Your task to perform on an android device: Open the calendar app, open the side menu, and click the "Day" option Image 0: 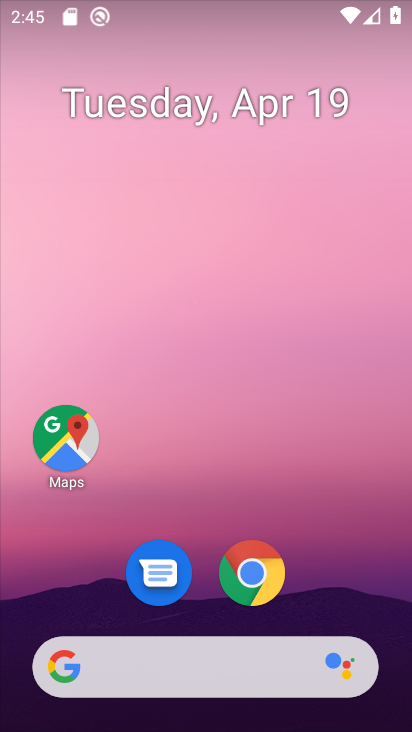
Step 0: drag from (195, 541) to (242, 150)
Your task to perform on an android device: Open the calendar app, open the side menu, and click the "Day" option Image 1: 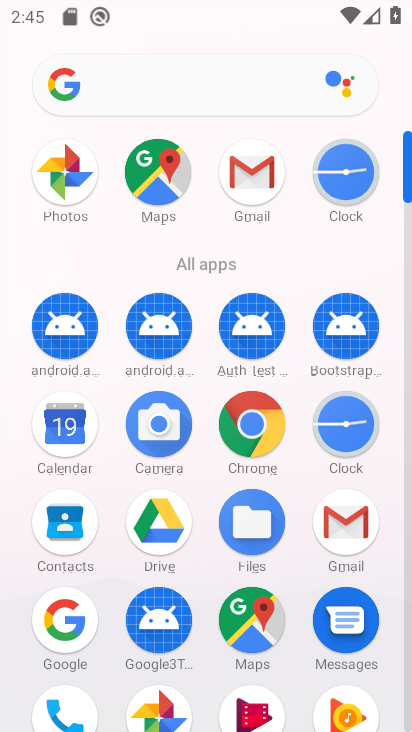
Step 1: click (77, 446)
Your task to perform on an android device: Open the calendar app, open the side menu, and click the "Day" option Image 2: 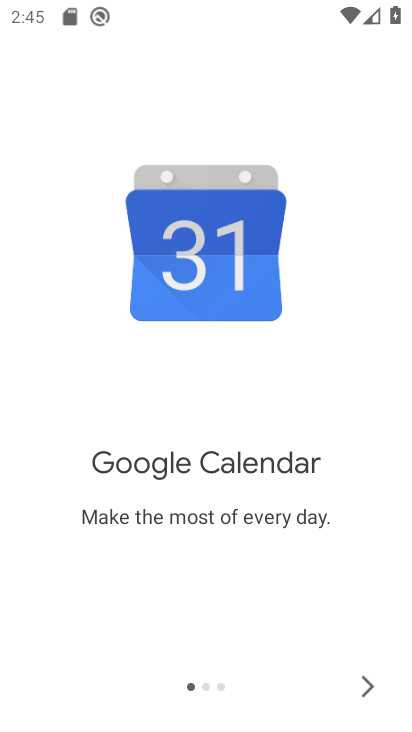
Step 2: click (376, 692)
Your task to perform on an android device: Open the calendar app, open the side menu, and click the "Day" option Image 3: 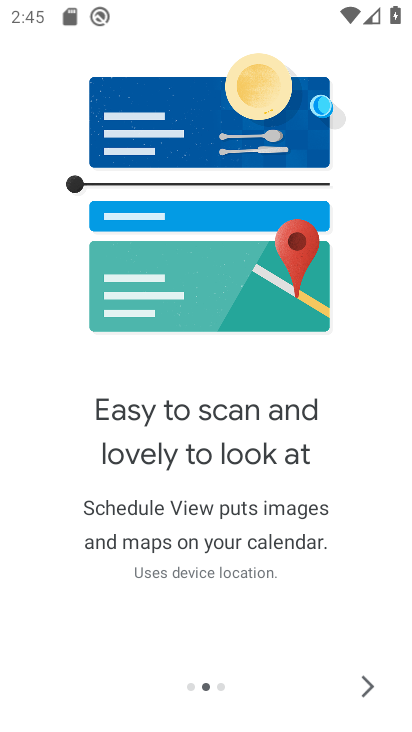
Step 3: click (368, 696)
Your task to perform on an android device: Open the calendar app, open the side menu, and click the "Day" option Image 4: 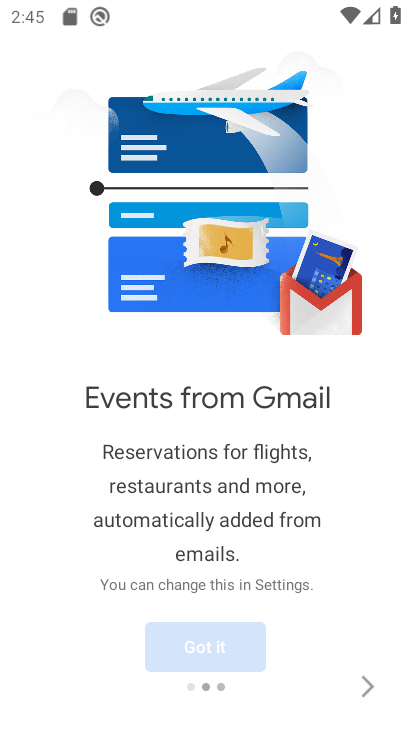
Step 4: click (363, 691)
Your task to perform on an android device: Open the calendar app, open the side menu, and click the "Day" option Image 5: 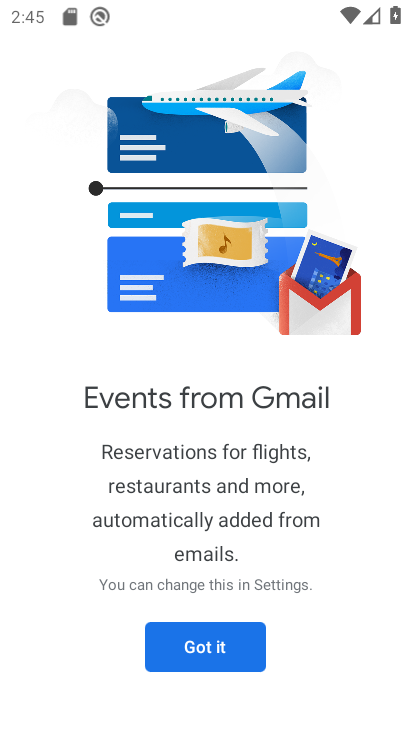
Step 5: click (231, 654)
Your task to perform on an android device: Open the calendar app, open the side menu, and click the "Day" option Image 6: 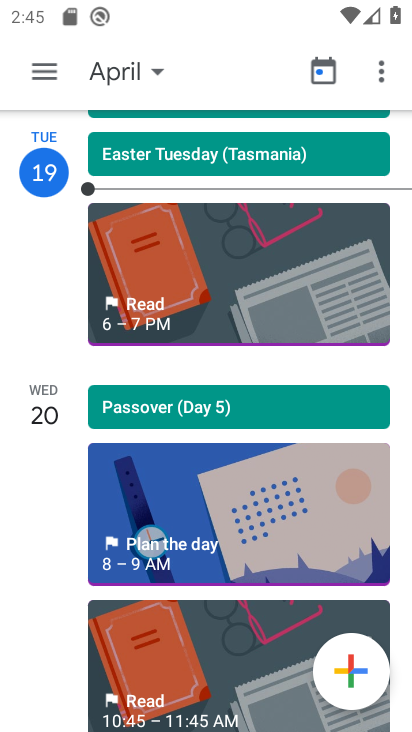
Step 6: click (53, 72)
Your task to perform on an android device: Open the calendar app, open the side menu, and click the "Day" option Image 7: 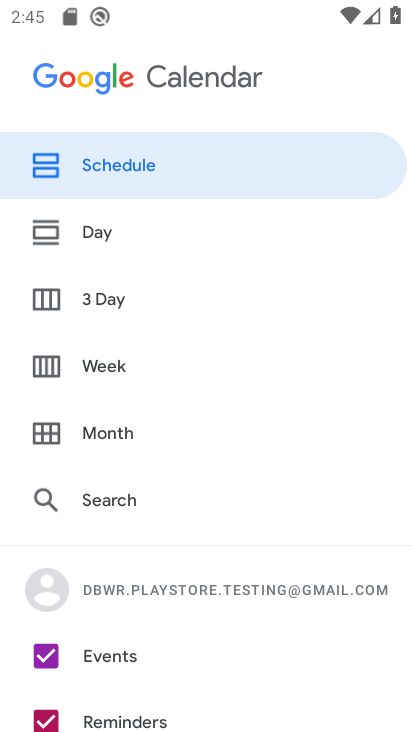
Step 7: click (134, 243)
Your task to perform on an android device: Open the calendar app, open the side menu, and click the "Day" option Image 8: 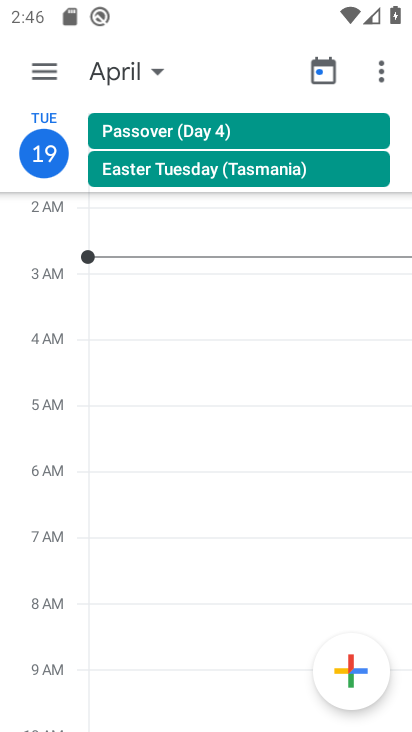
Step 8: task complete